Your task to perform on an android device: turn off airplane mode Image 0: 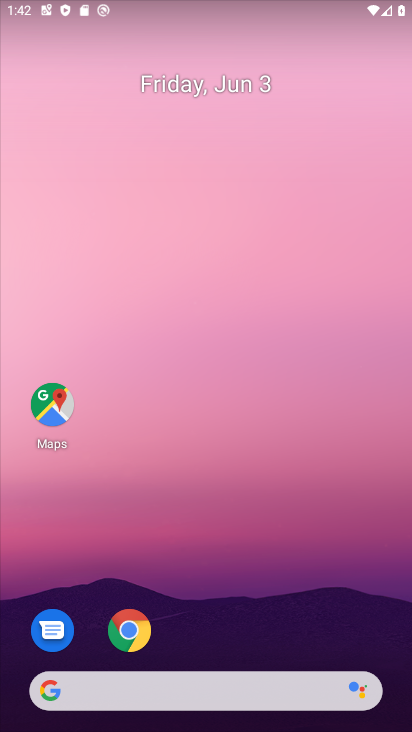
Step 0: drag from (245, 719) to (245, 5)
Your task to perform on an android device: turn off airplane mode Image 1: 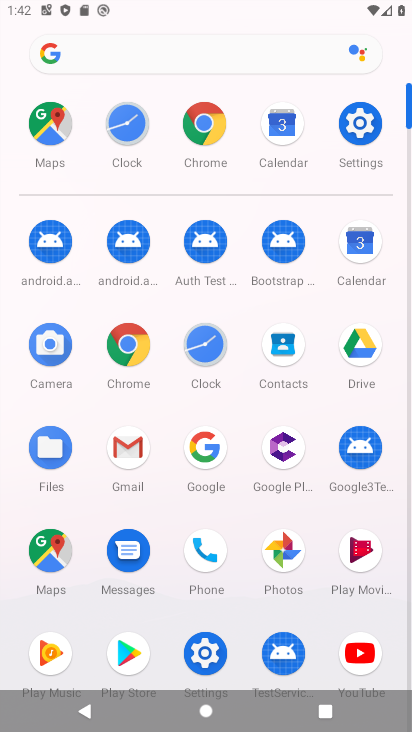
Step 1: click (371, 126)
Your task to perform on an android device: turn off airplane mode Image 2: 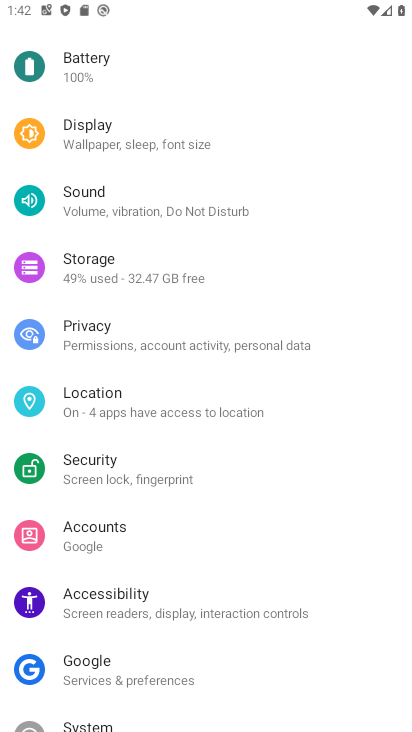
Step 2: drag from (222, 166) to (223, 523)
Your task to perform on an android device: turn off airplane mode Image 3: 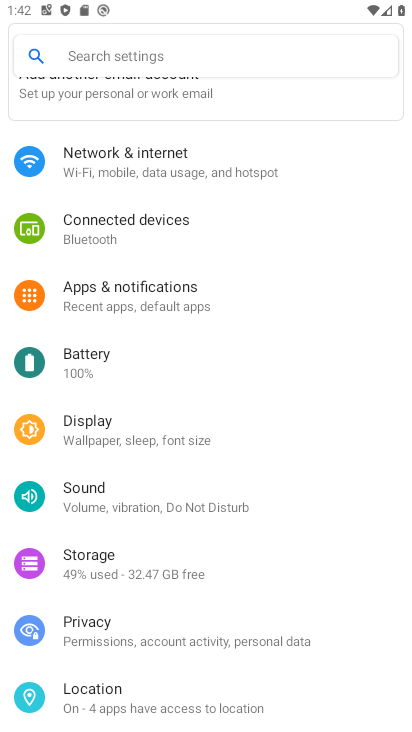
Step 3: click (177, 162)
Your task to perform on an android device: turn off airplane mode Image 4: 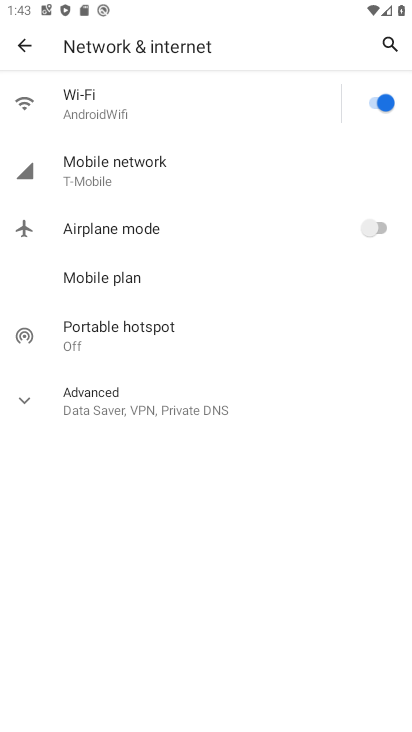
Step 4: task complete